Your task to perform on an android device: How much does a 3 bedroom apartment rent for in Dallas? Image 0: 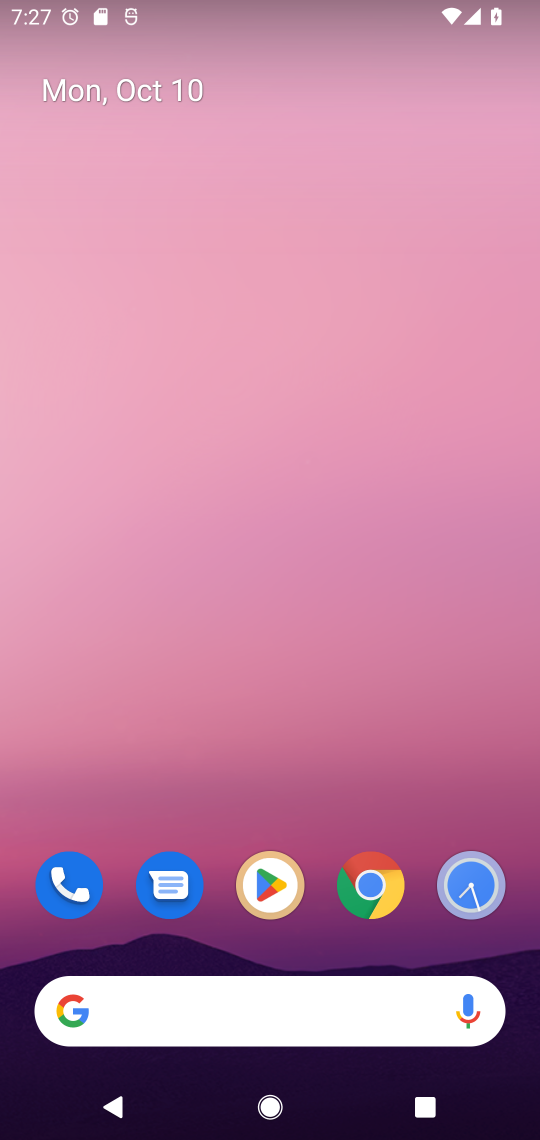
Step 0: click (379, 865)
Your task to perform on an android device: How much does a 3 bedroom apartment rent for in Dallas? Image 1: 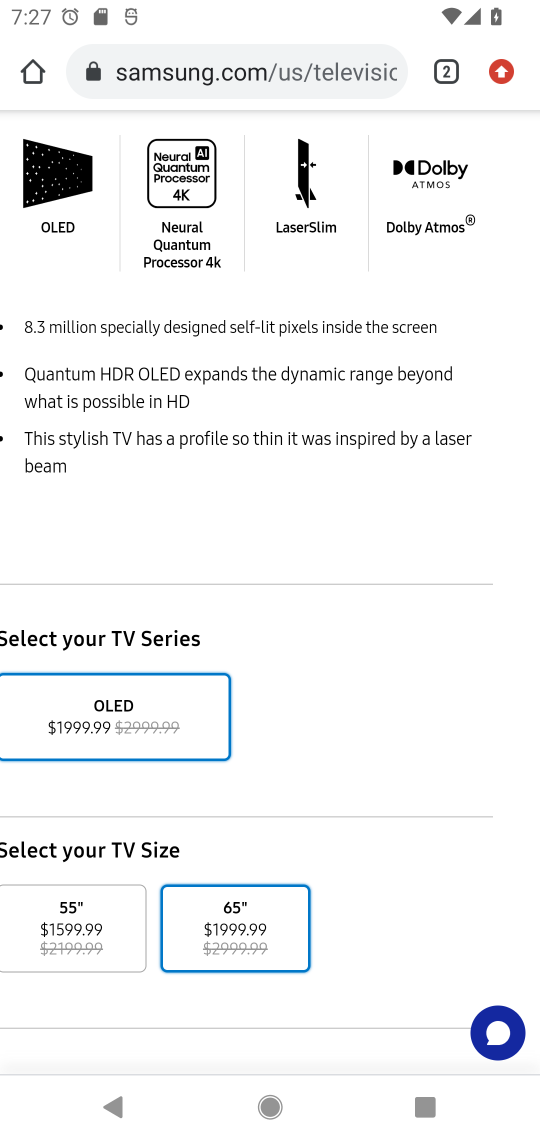
Step 1: click (281, 69)
Your task to perform on an android device: How much does a 3 bedroom apartment rent for in Dallas? Image 2: 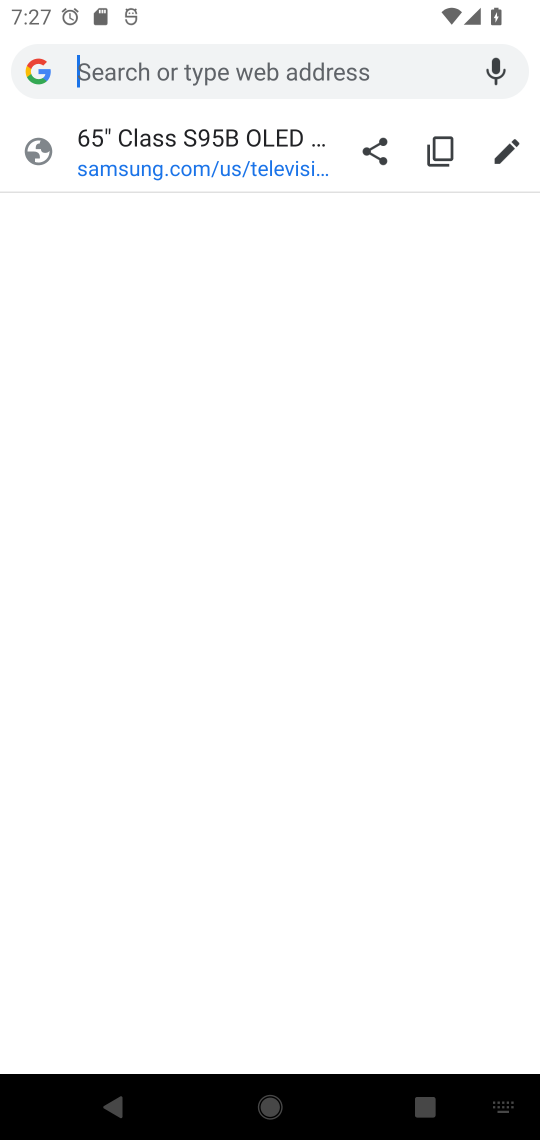
Step 2: type "3 bedroom apartment rent for in Dallas"
Your task to perform on an android device: How much does a 3 bedroom apartment rent for in Dallas? Image 3: 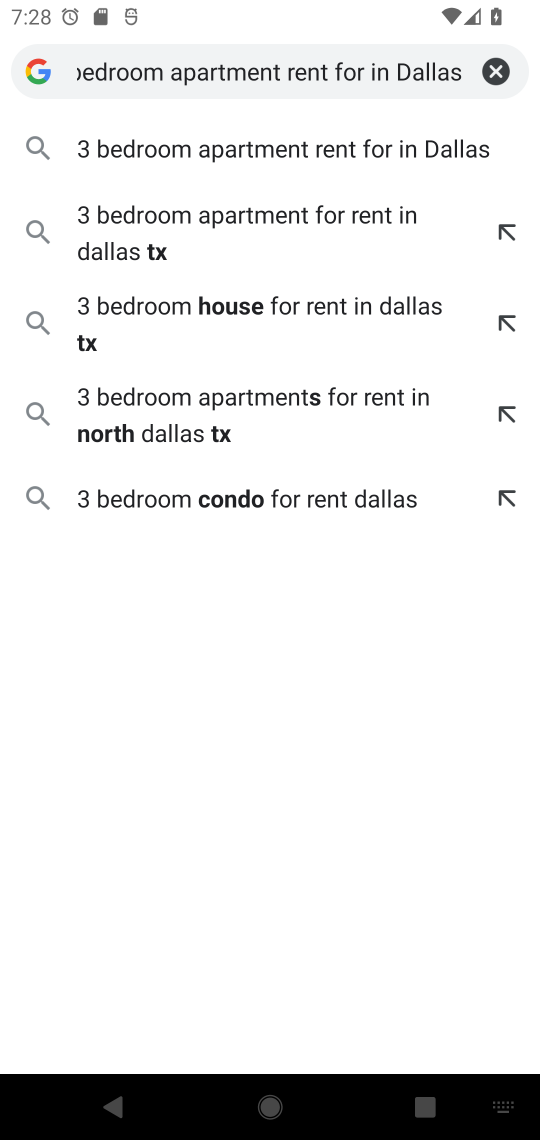
Step 3: click (386, 153)
Your task to perform on an android device: How much does a 3 bedroom apartment rent for in Dallas? Image 4: 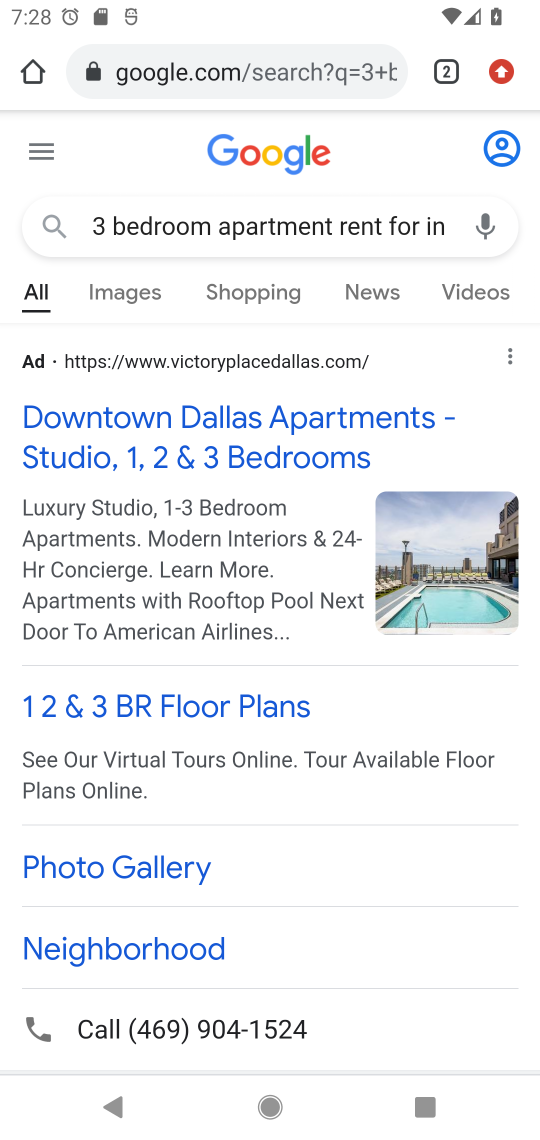
Step 4: drag from (281, 516) to (297, 415)
Your task to perform on an android device: How much does a 3 bedroom apartment rent for in Dallas? Image 5: 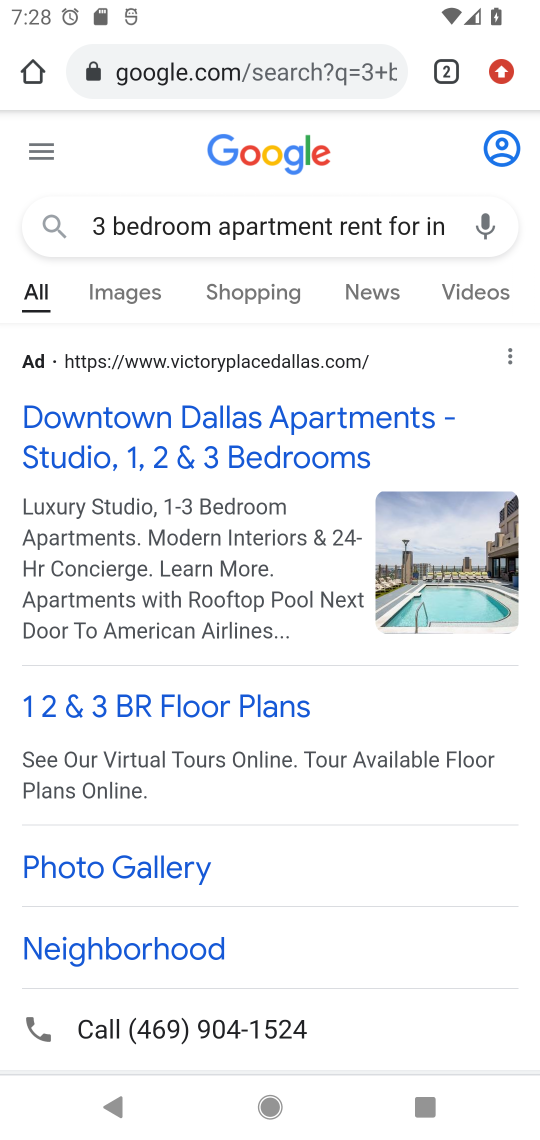
Step 5: drag from (392, 1036) to (242, 430)
Your task to perform on an android device: How much does a 3 bedroom apartment rent for in Dallas? Image 6: 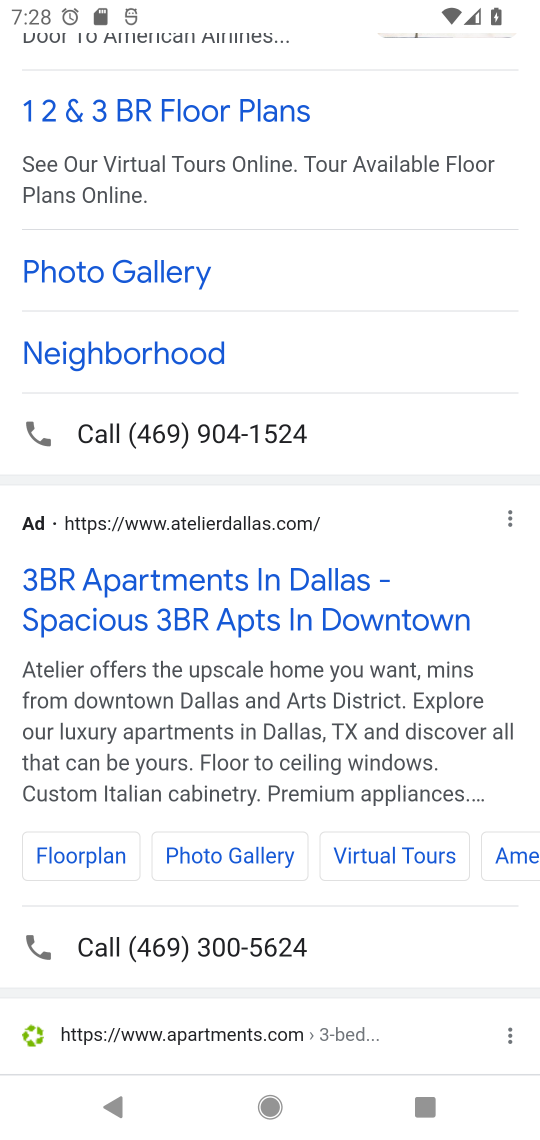
Step 6: click (193, 584)
Your task to perform on an android device: How much does a 3 bedroom apartment rent for in Dallas? Image 7: 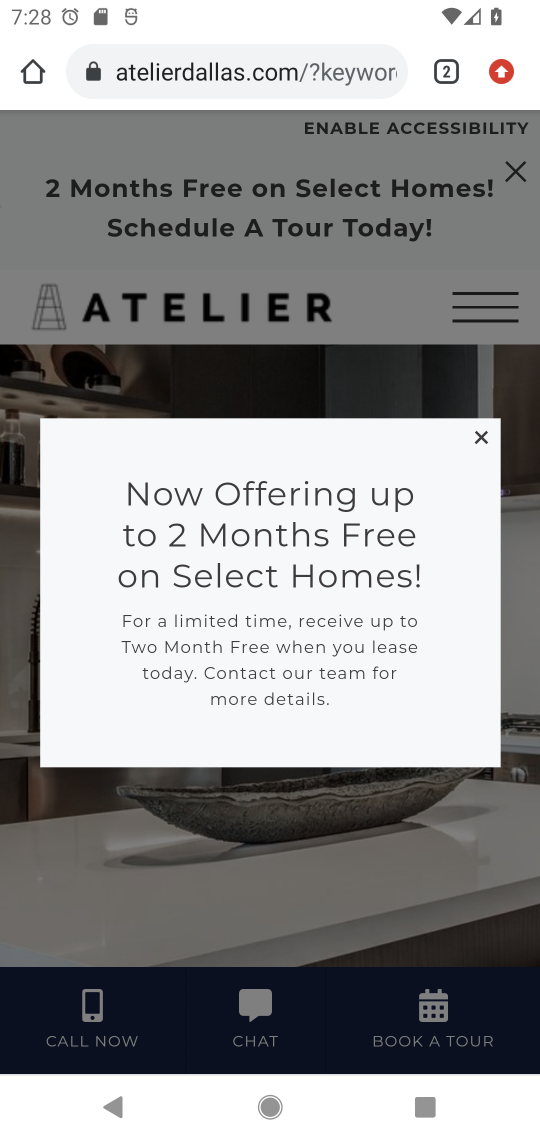
Step 7: click (480, 434)
Your task to perform on an android device: How much does a 3 bedroom apartment rent for in Dallas? Image 8: 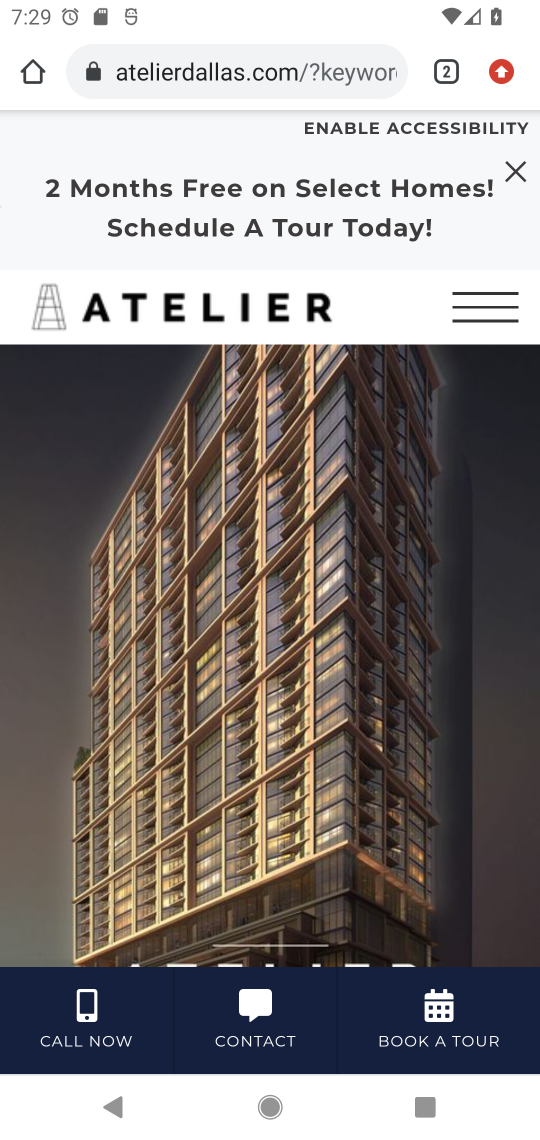
Step 8: task complete